Your task to perform on an android device: check android version Image 0: 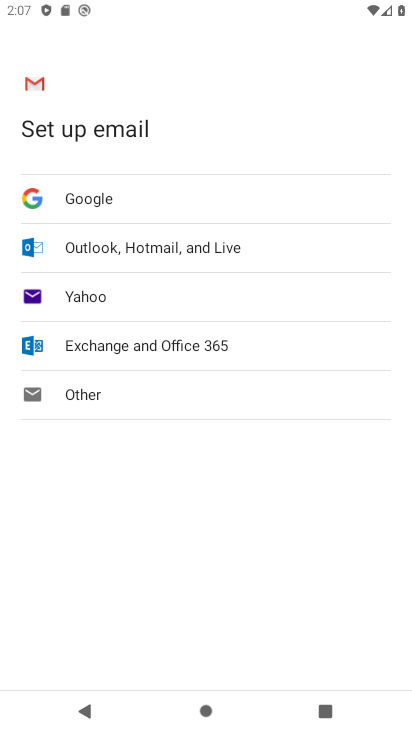
Step 0: press home button
Your task to perform on an android device: check android version Image 1: 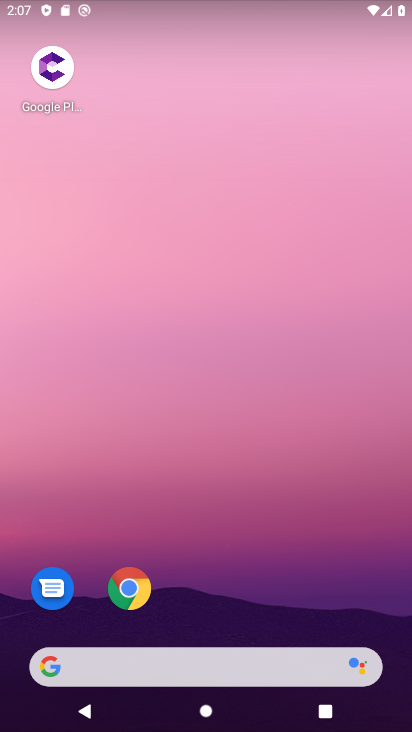
Step 1: drag from (177, 612) to (283, 73)
Your task to perform on an android device: check android version Image 2: 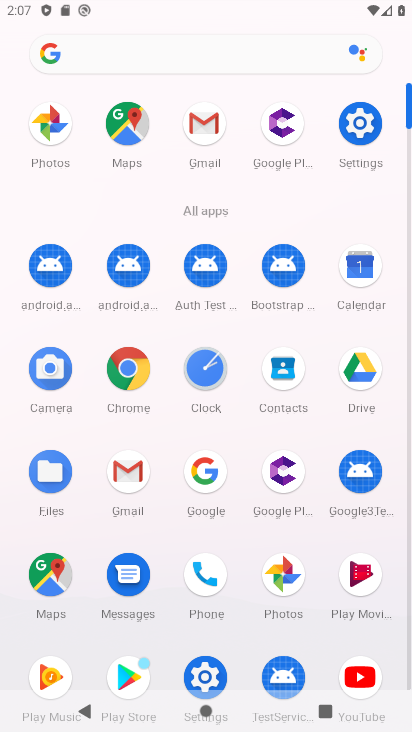
Step 2: drag from (148, 563) to (246, 347)
Your task to perform on an android device: check android version Image 3: 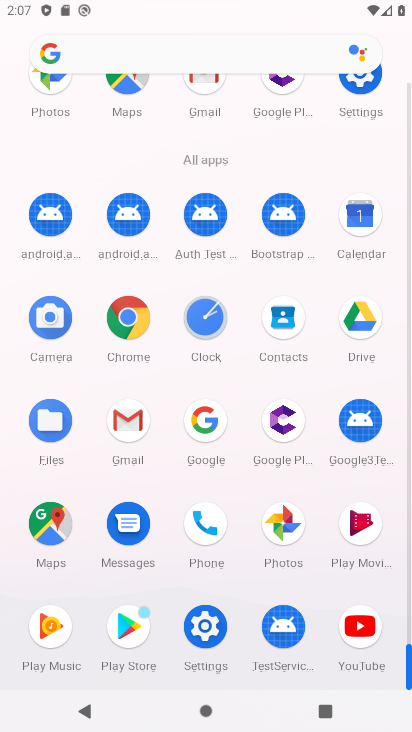
Step 3: click (217, 638)
Your task to perform on an android device: check android version Image 4: 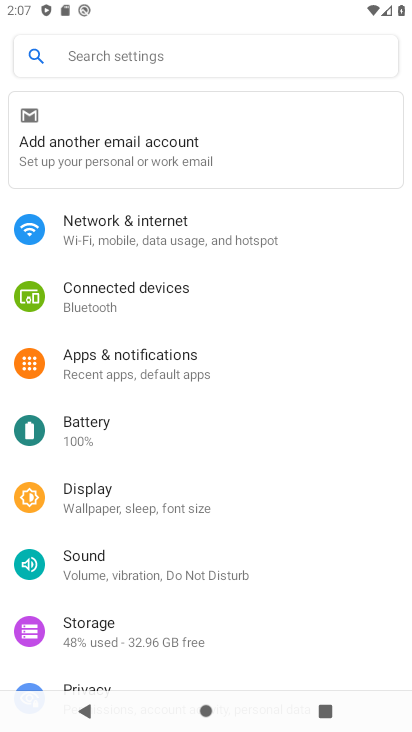
Step 4: drag from (229, 588) to (338, 96)
Your task to perform on an android device: check android version Image 5: 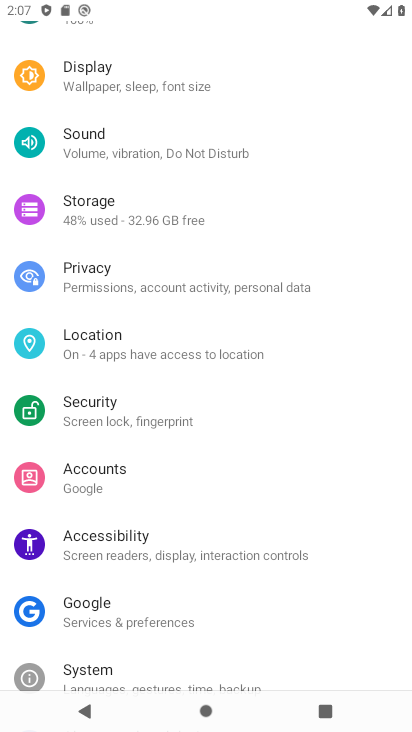
Step 5: drag from (160, 594) to (269, 151)
Your task to perform on an android device: check android version Image 6: 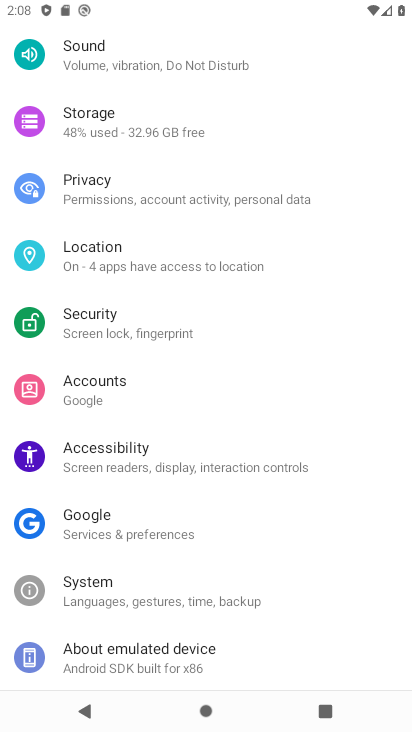
Step 6: click (192, 658)
Your task to perform on an android device: check android version Image 7: 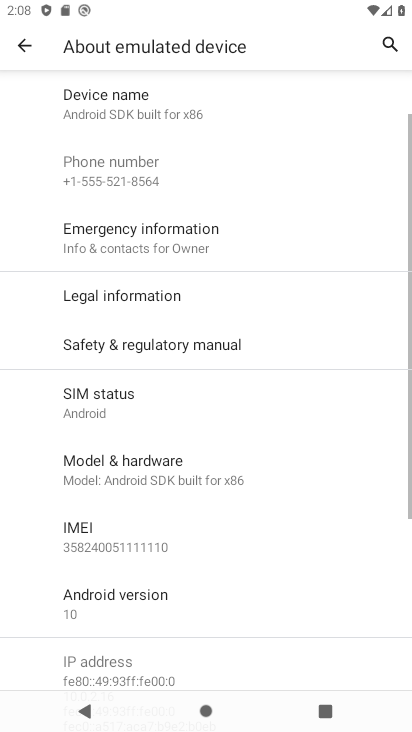
Step 7: click (186, 614)
Your task to perform on an android device: check android version Image 8: 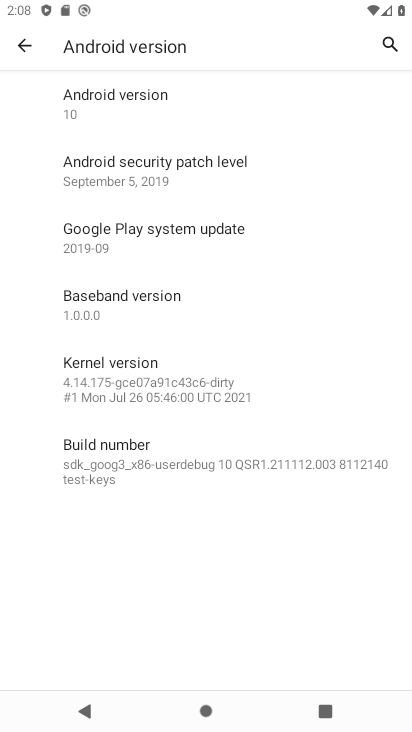
Step 8: task complete